Your task to perform on an android device: Open battery settings Image 0: 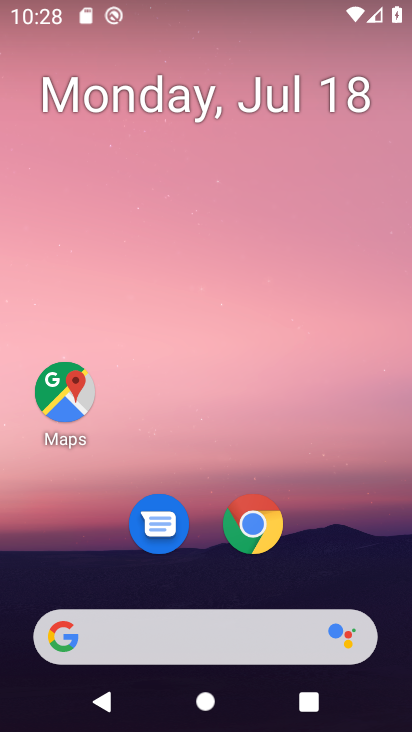
Step 0: drag from (322, 525) to (353, 17)
Your task to perform on an android device: Open battery settings Image 1: 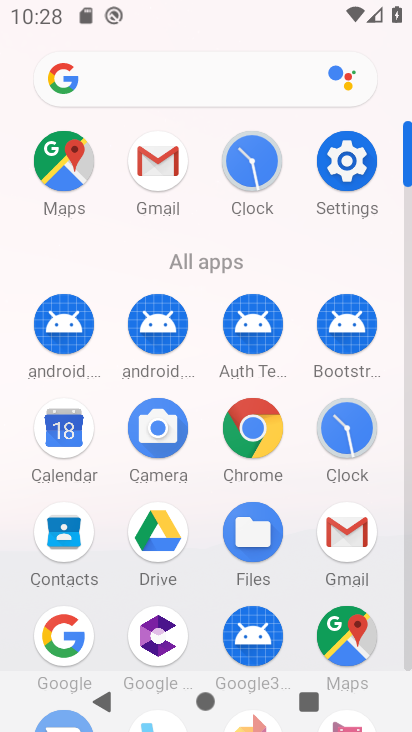
Step 1: click (335, 165)
Your task to perform on an android device: Open battery settings Image 2: 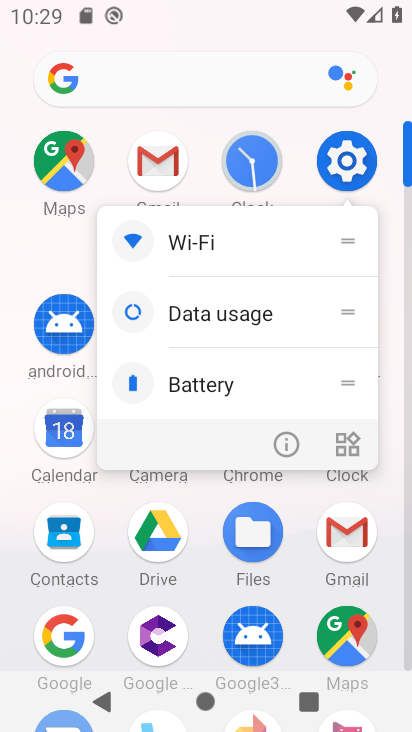
Step 2: click (341, 157)
Your task to perform on an android device: Open battery settings Image 3: 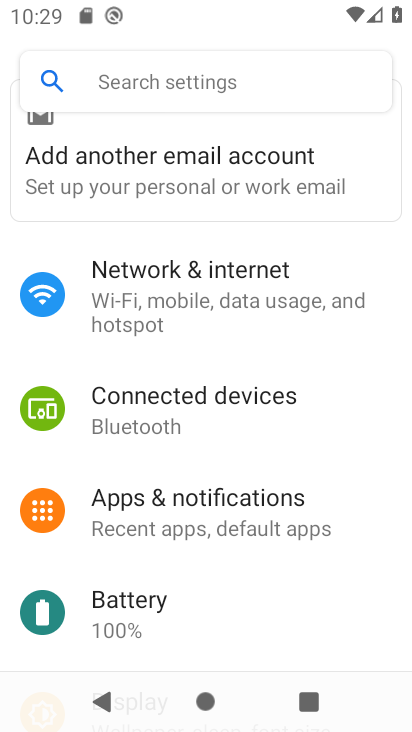
Step 3: drag from (239, 466) to (239, 142)
Your task to perform on an android device: Open battery settings Image 4: 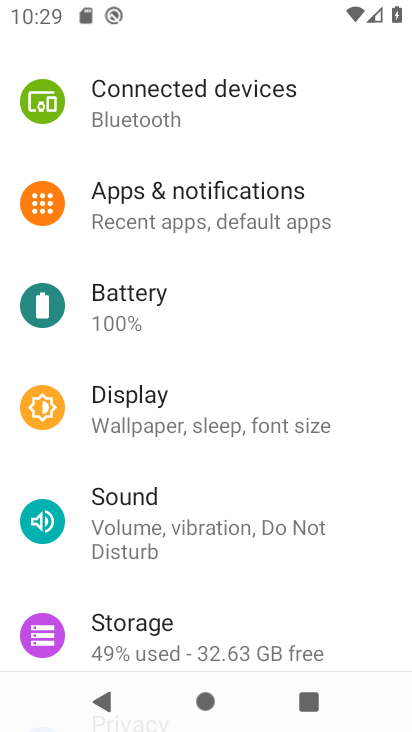
Step 4: click (181, 324)
Your task to perform on an android device: Open battery settings Image 5: 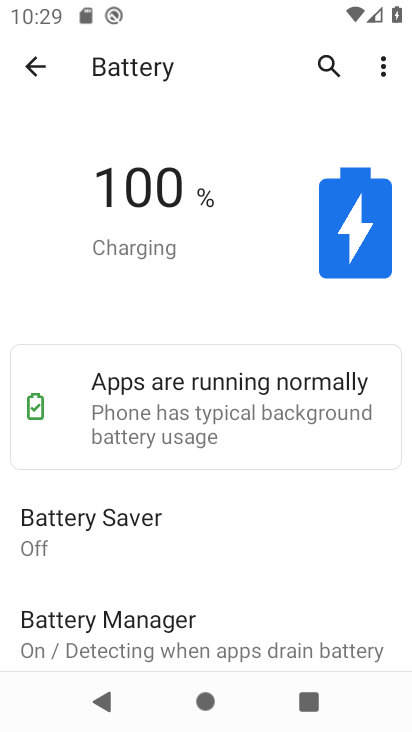
Step 5: task complete